Your task to perform on an android device: turn notification dots on Image 0: 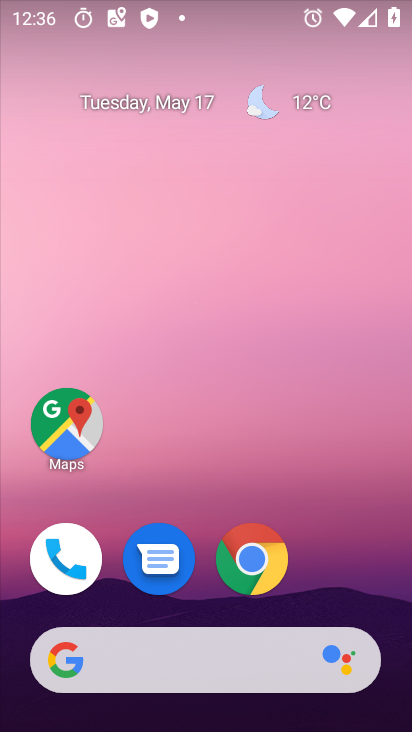
Step 0: drag from (363, 536) to (296, 134)
Your task to perform on an android device: turn notification dots on Image 1: 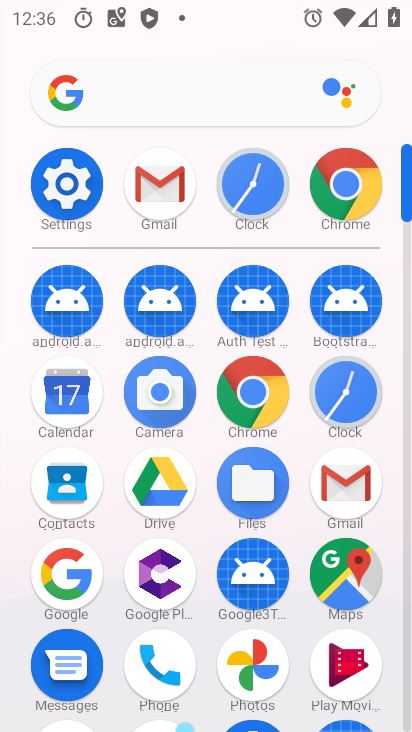
Step 1: click (77, 199)
Your task to perform on an android device: turn notification dots on Image 2: 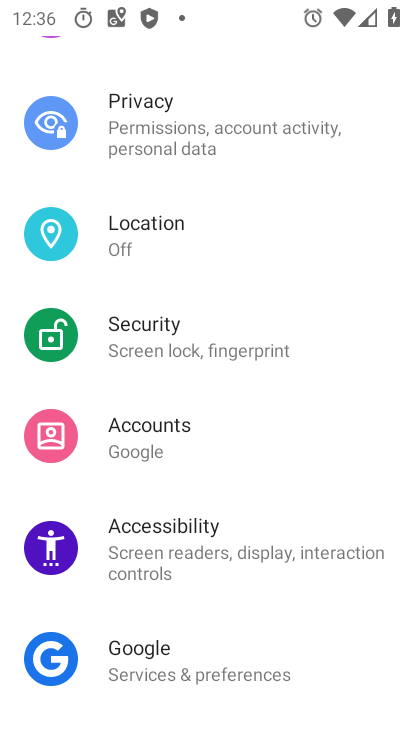
Step 2: drag from (238, 649) to (236, 696)
Your task to perform on an android device: turn notification dots on Image 3: 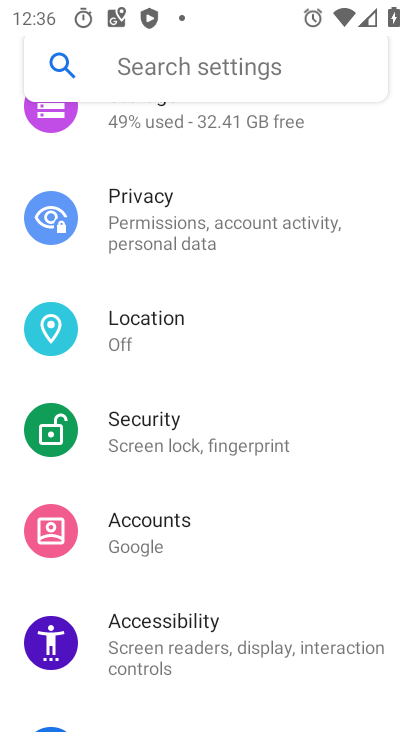
Step 3: drag from (223, 254) to (266, 590)
Your task to perform on an android device: turn notification dots on Image 4: 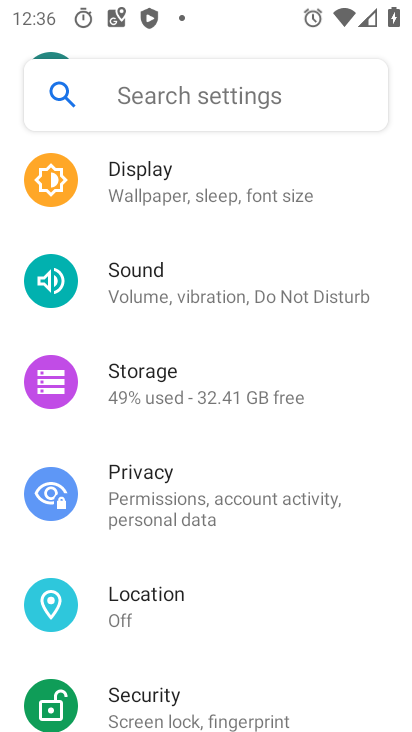
Step 4: drag from (237, 243) to (262, 604)
Your task to perform on an android device: turn notification dots on Image 5: 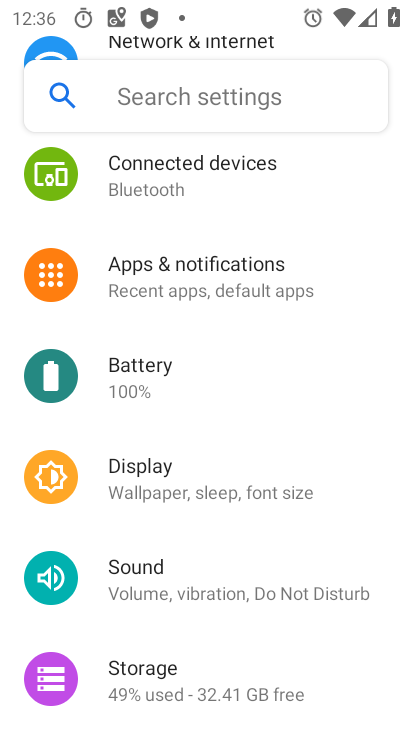
Step 5: click (207, 279)
Your task to perform on an android device: turn notification dots on Image 6: 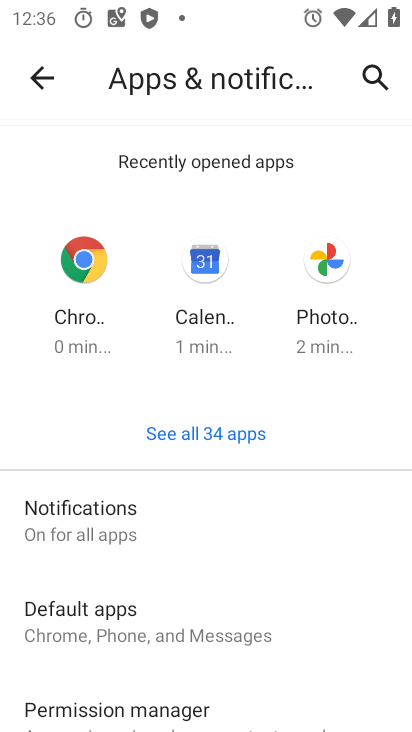
Step 6: drag from (273, 567) to (371, 113)
Your task to perform on an android device: turn notification dots on Image 7: 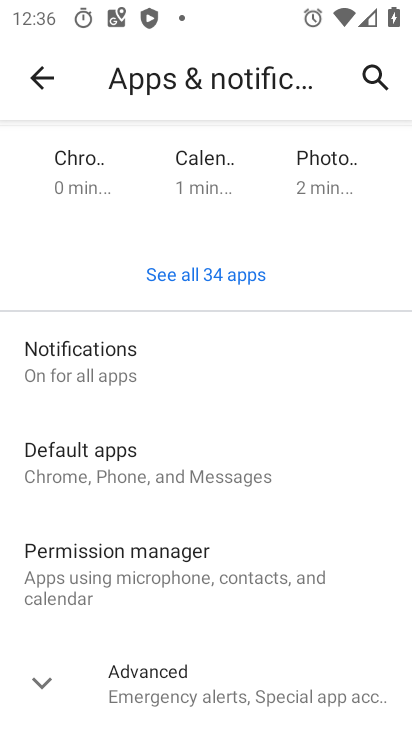
Step 7: click (171, 377)
Your task to perform on an android device: turn notification dots on Image 8: 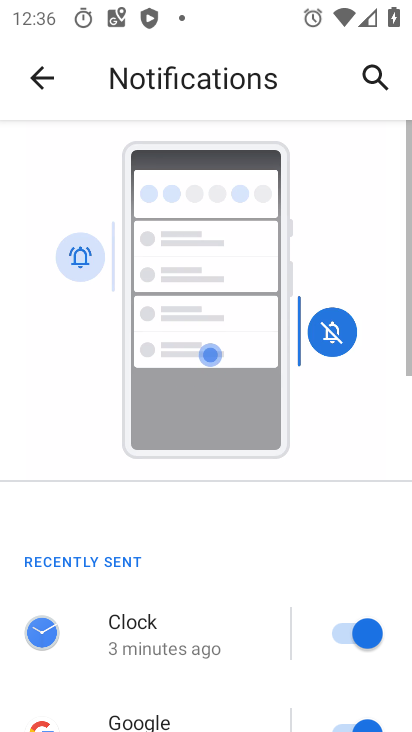
Step 8: drag from (245, 596) to (288, 51)
Your task to perform on an android device: turn notification dots on Image 9: 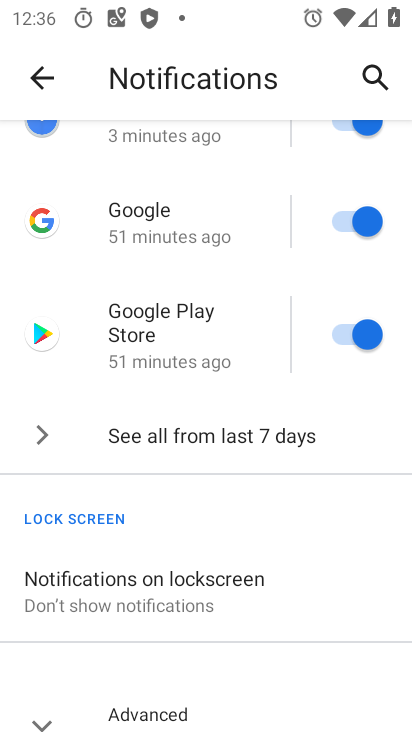
Step 9: drag from (205, 522) to (269, 110)
Your task to perform on an android device: turn notification dots on Image 10: 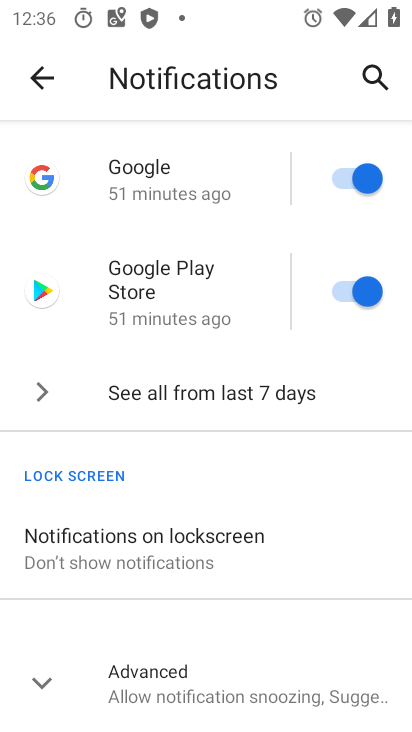
Step 10: click (167, 674)
Your task to perform on an android device: turn notification dots on Image 11: 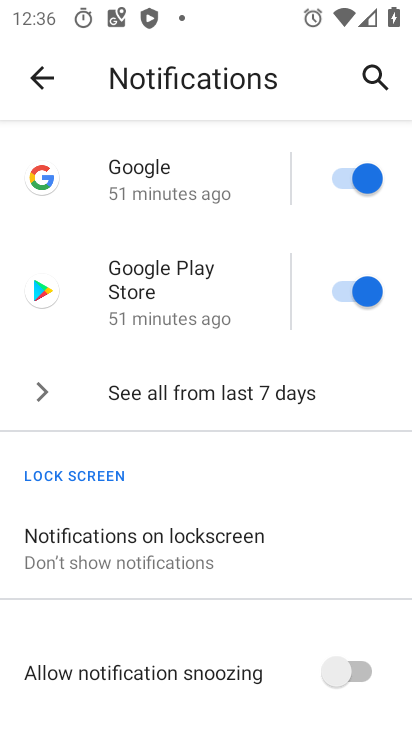
Step 11: task complete